Your task to perform on an android device: set an alarm Image 0: 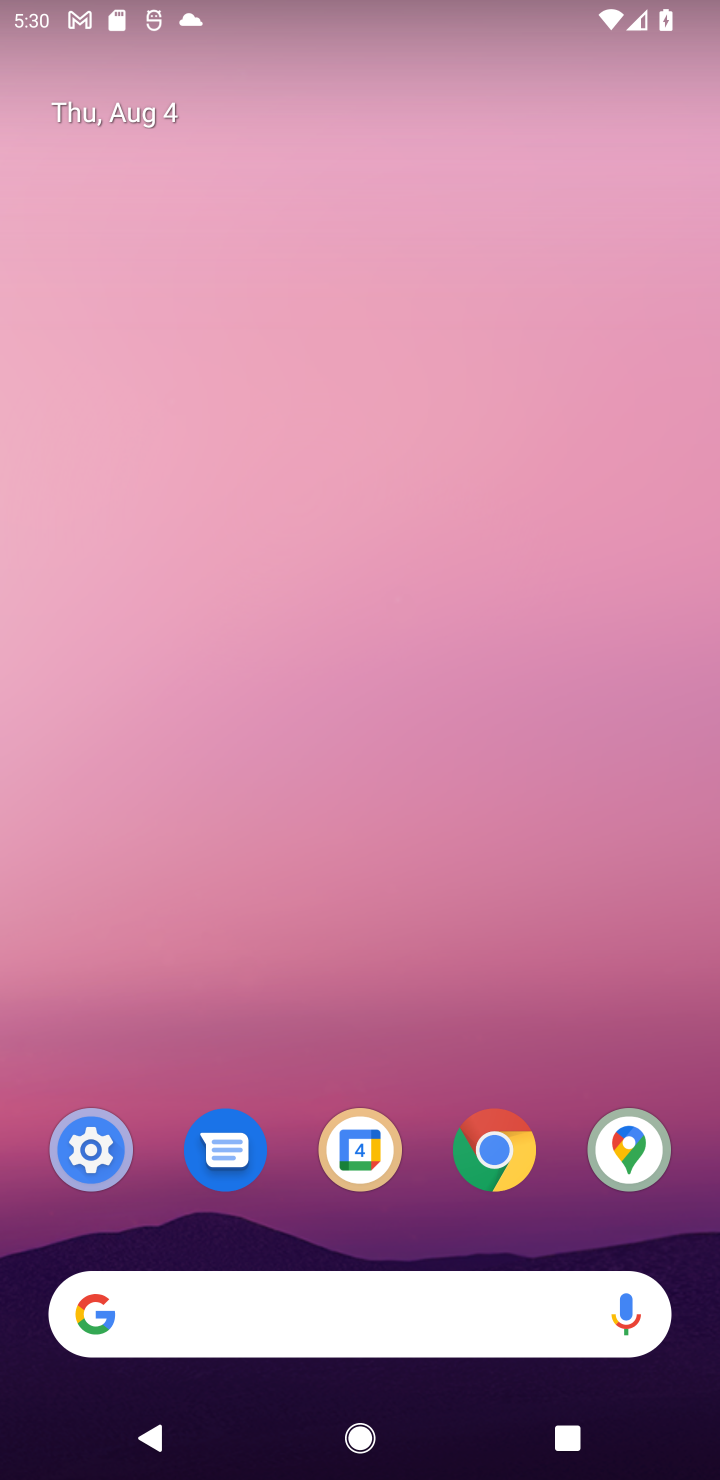
Step 0: drag from (283, 1148) to (234, 111)
Your task to perform on an android device: set an alarm Image 1: 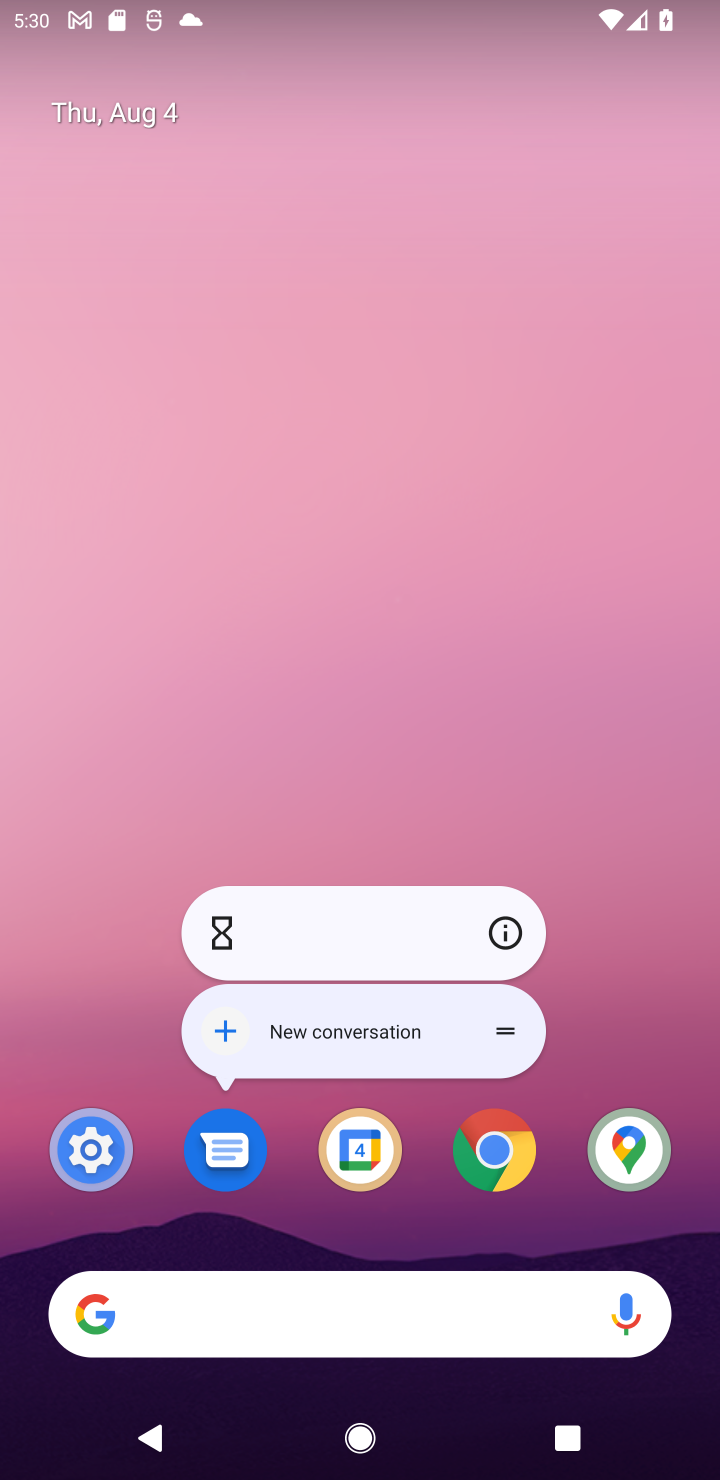
Step 1: drag from (413, 1176) to (277, 51)
Your task to perform on an android device: set an alarm Image 2: 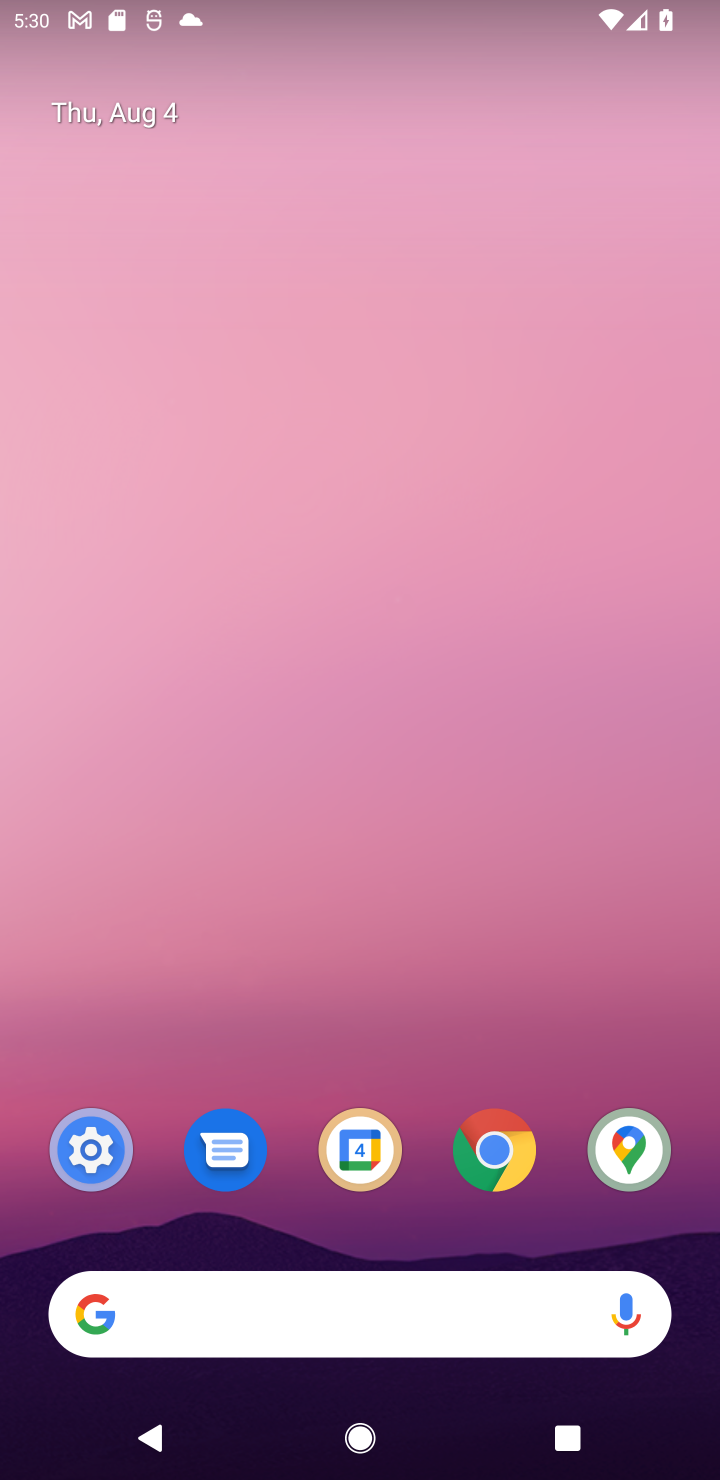
Step 2: drag from (396, 1242) to (378, 32)
Your task to perform on an android device: set an alarm Image 3: 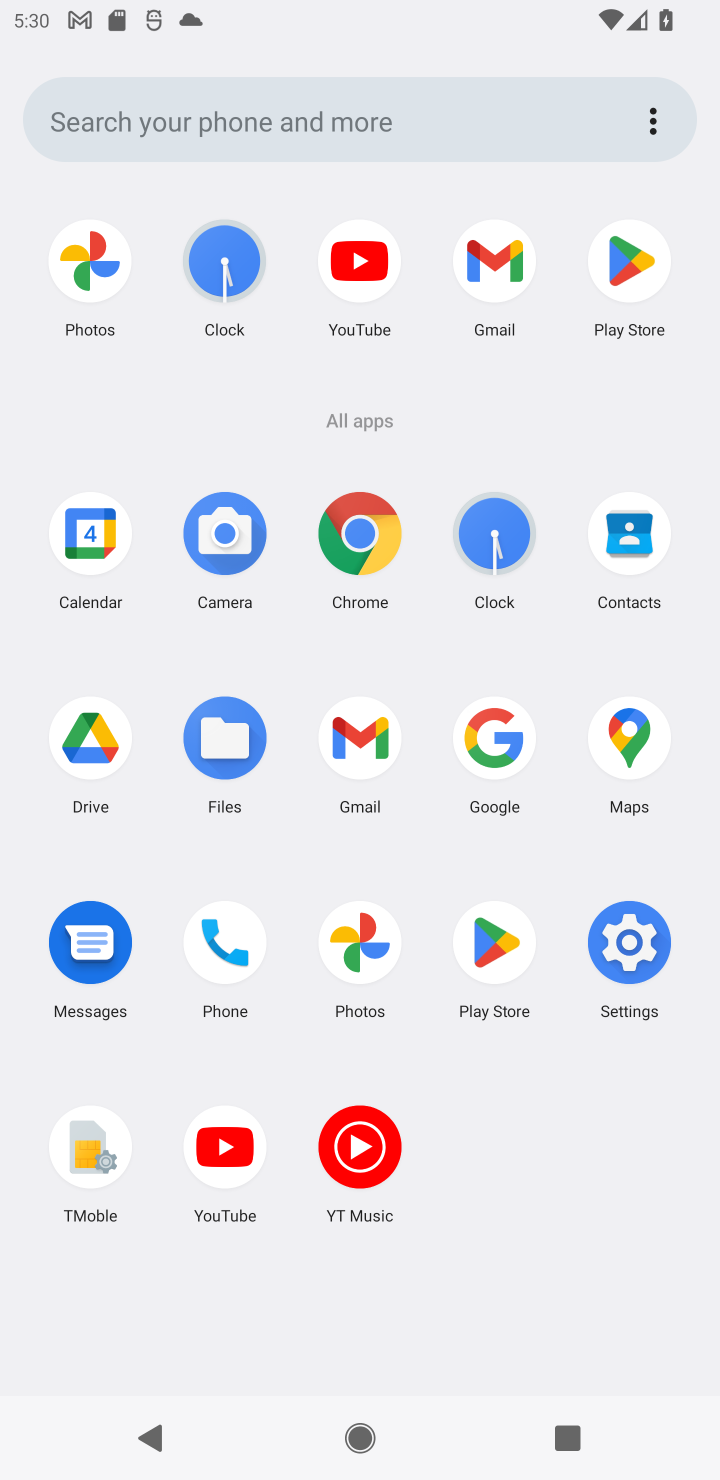
Step 3: click (498, 571)
Your task to perform on an android device: set an alarm Image 4: 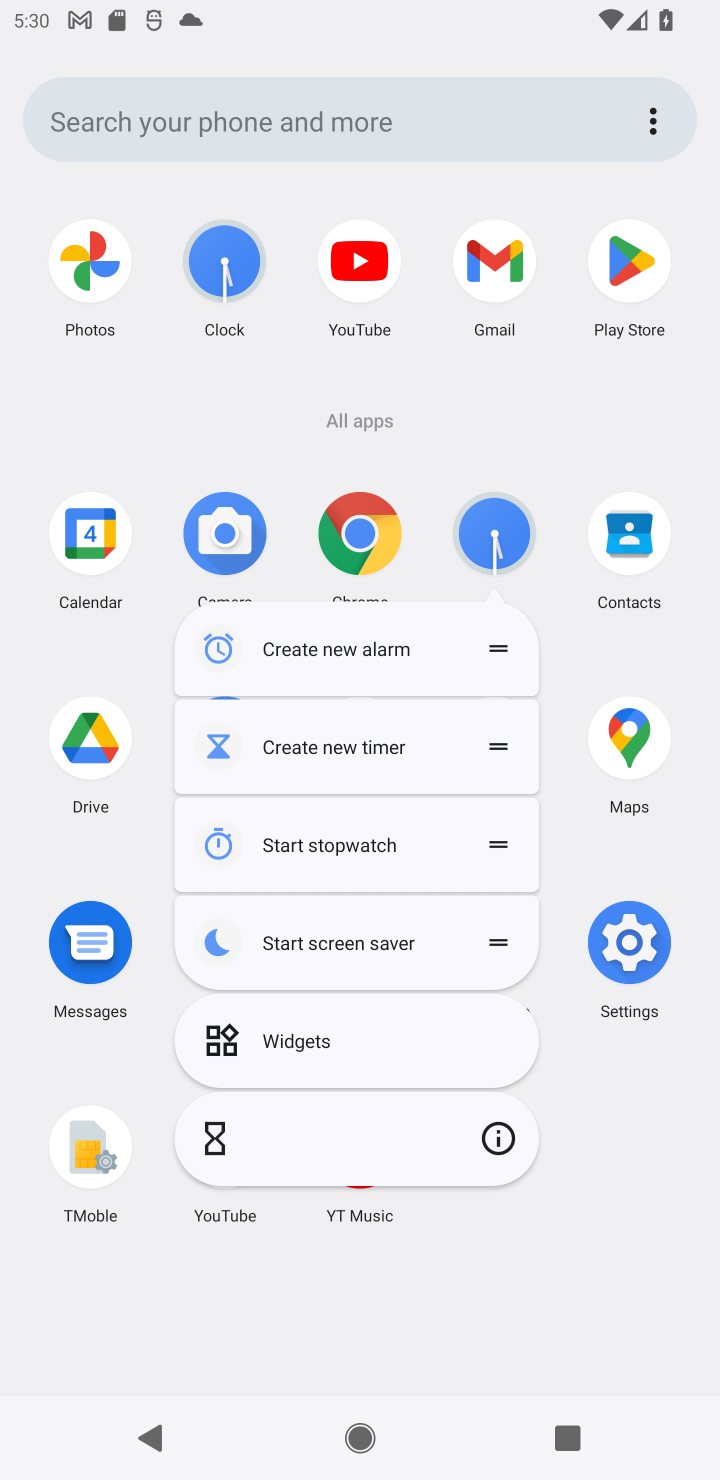
Step 4: click (501, 543)
Your task to perform on an android device: set an alarm Image 5: 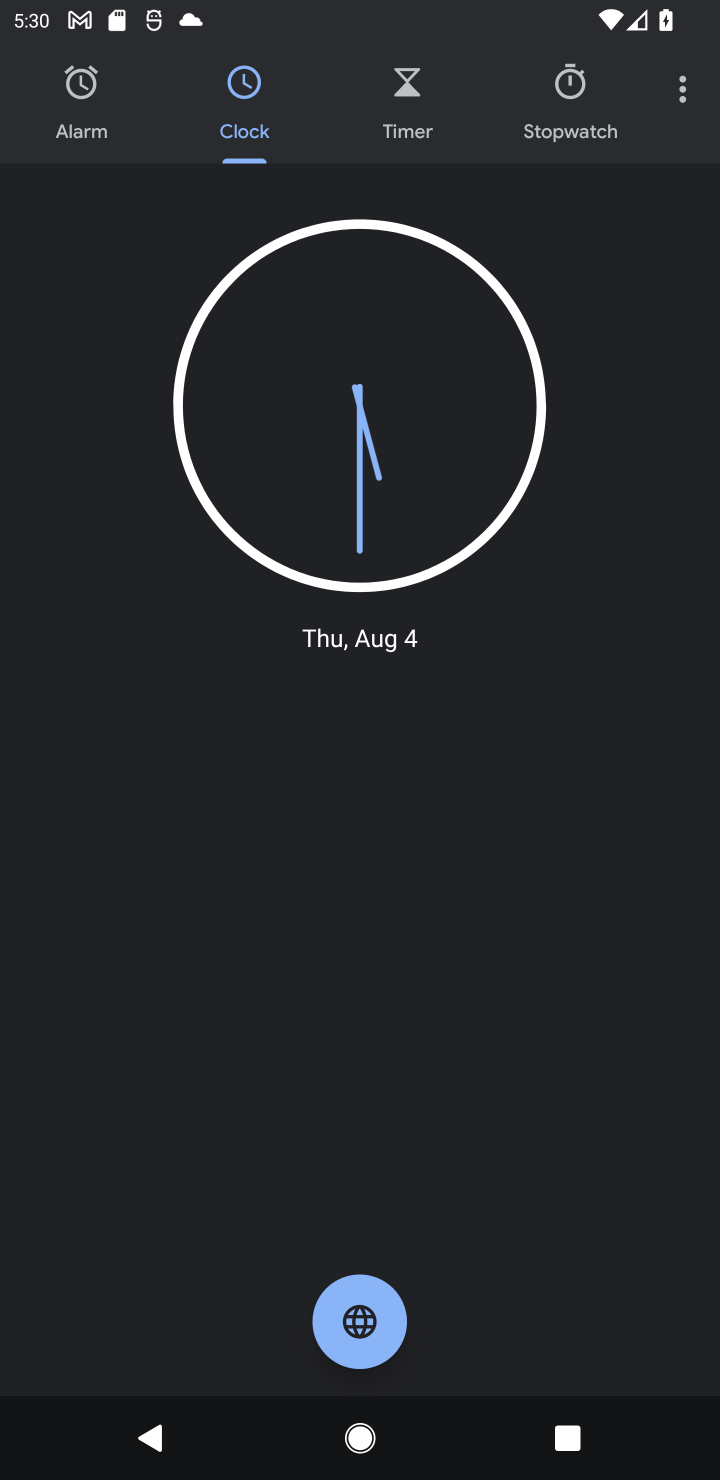
Step 5: click (82, 120)
Your task to perform on an android device: set an alarm Image 6: 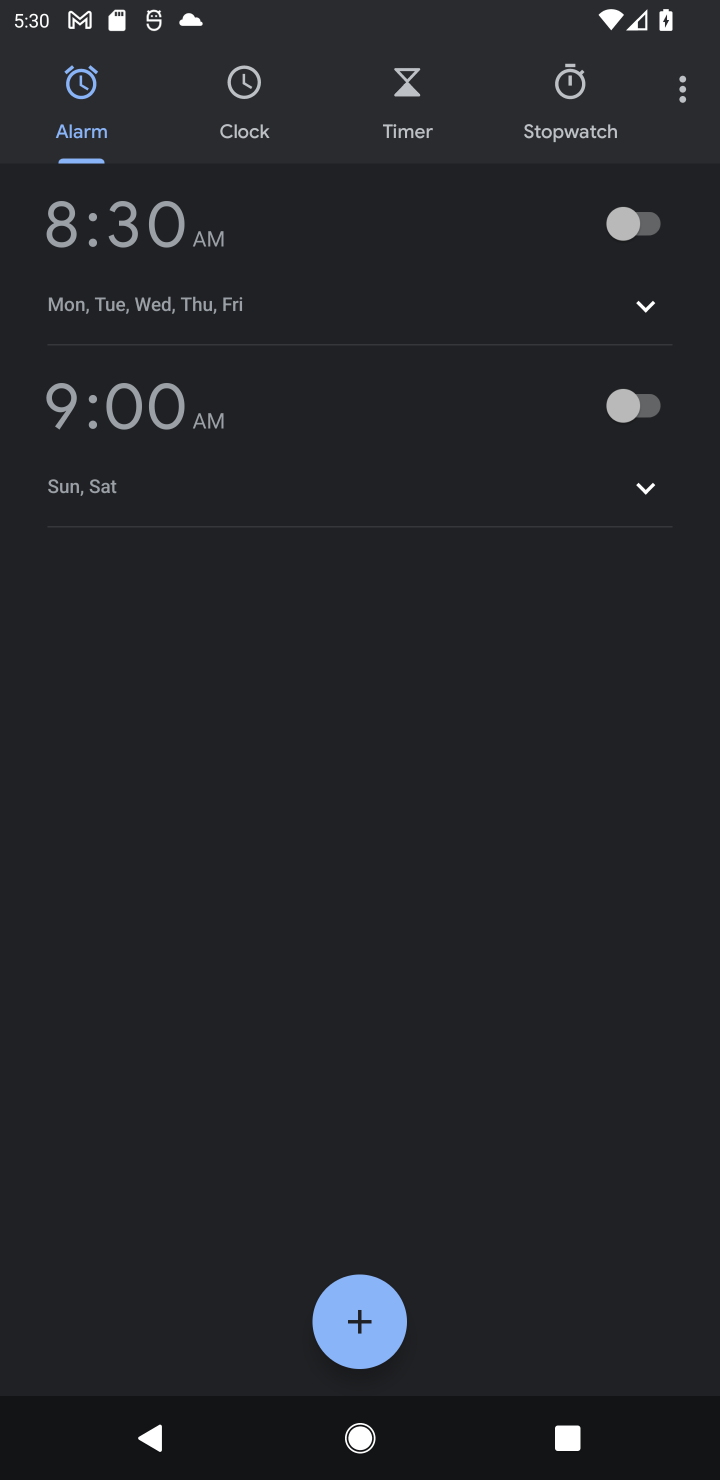
Step 6: click (133, 243)
Your task to perform on an android device: set an alarm Image 7: 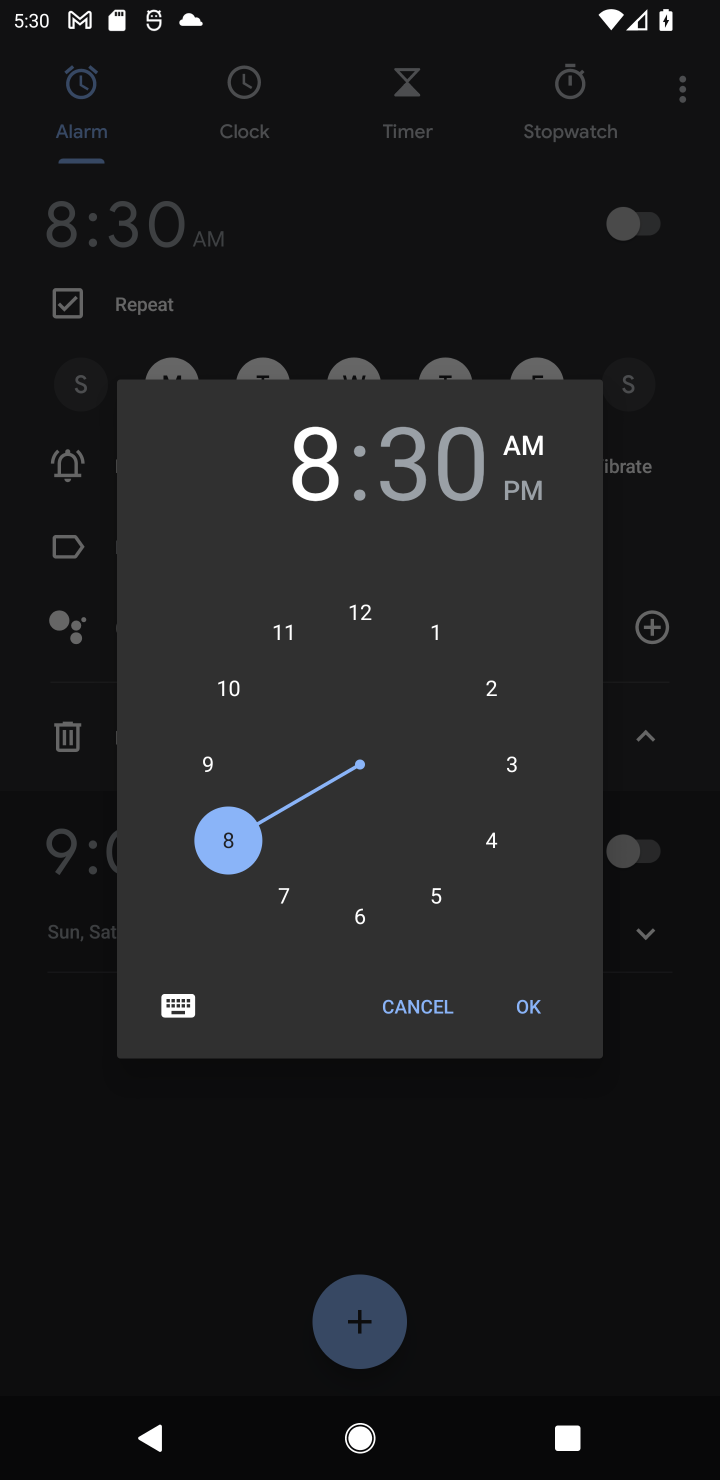
Step 7: click (295, 628)
Your task to perform on an android device: set an alarm Image 8: 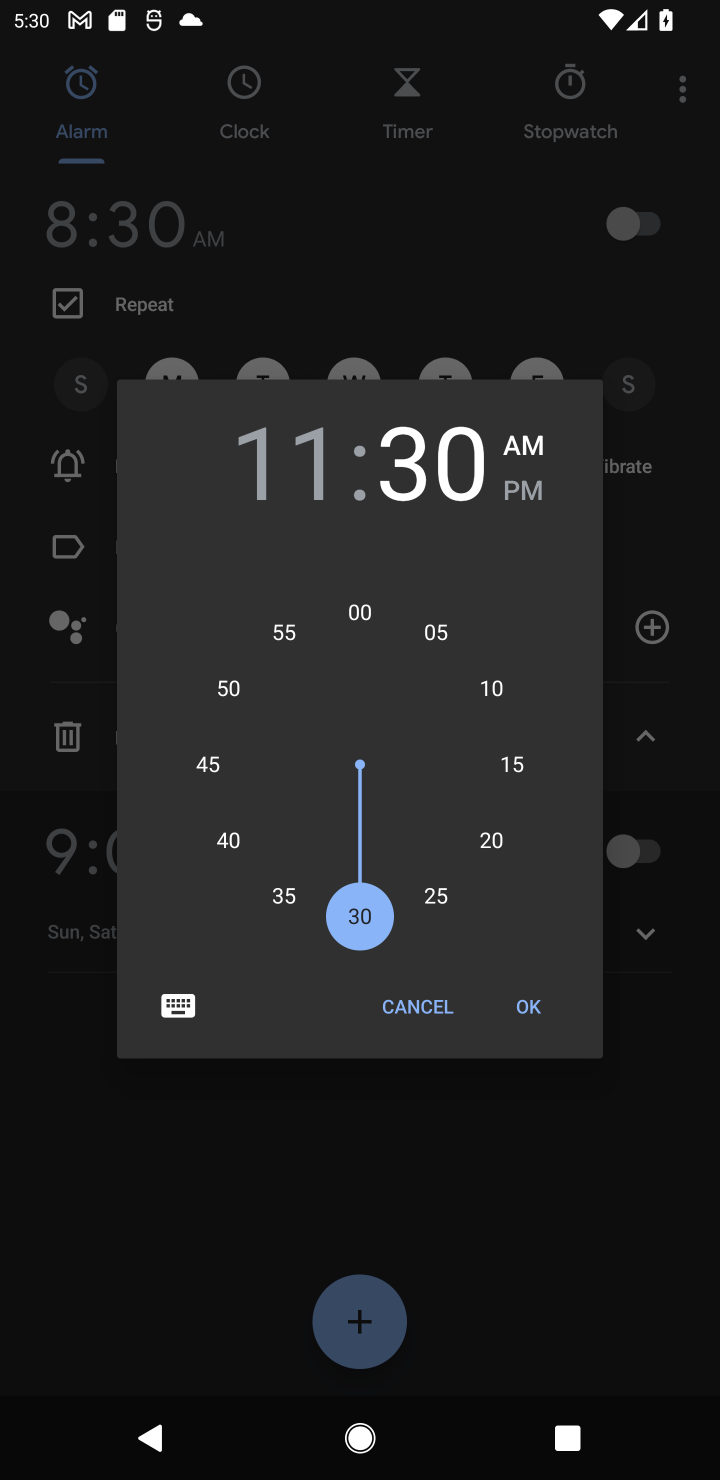
Step 8: click (510, 744)
Your task to perform on an android device: set an alarm Image 9: 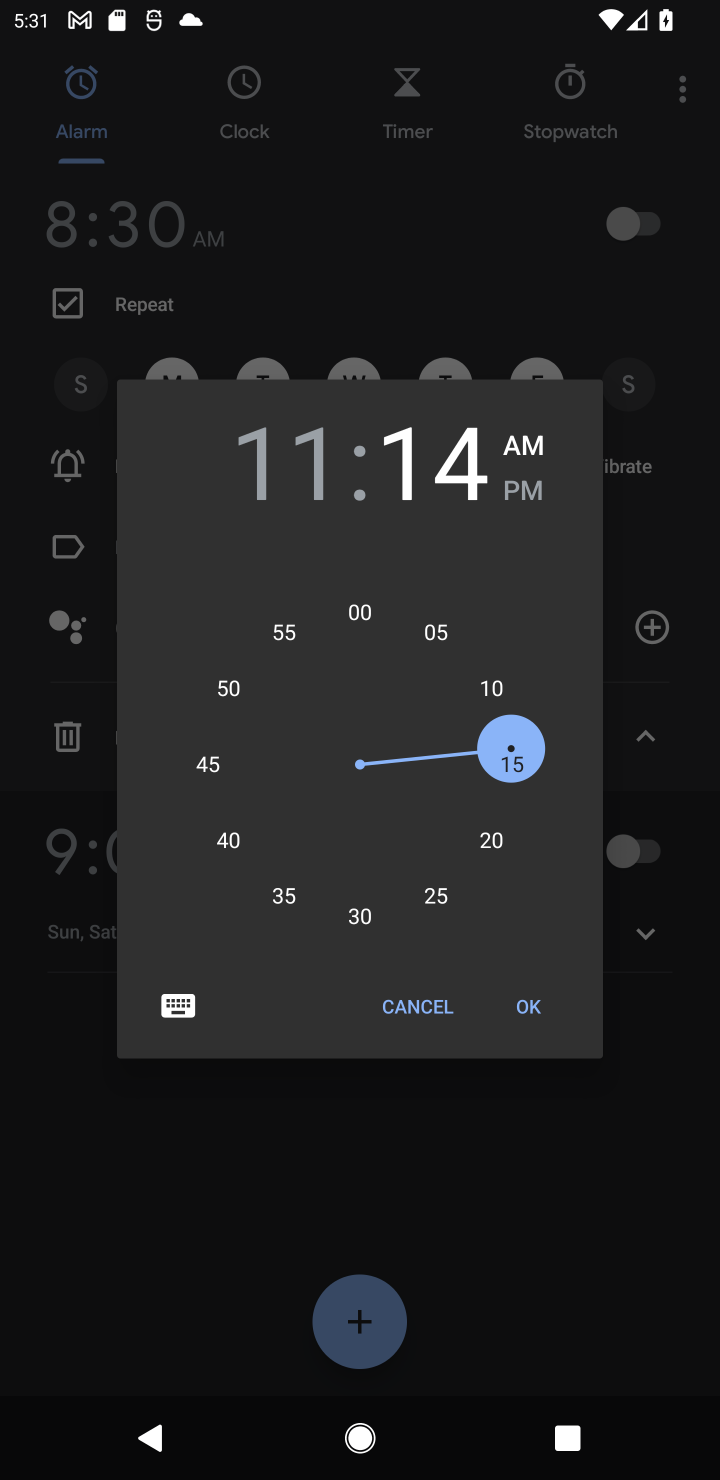
Step 9: click (543, 503)
Your task to perform on an android device: set an alarm Image 10: 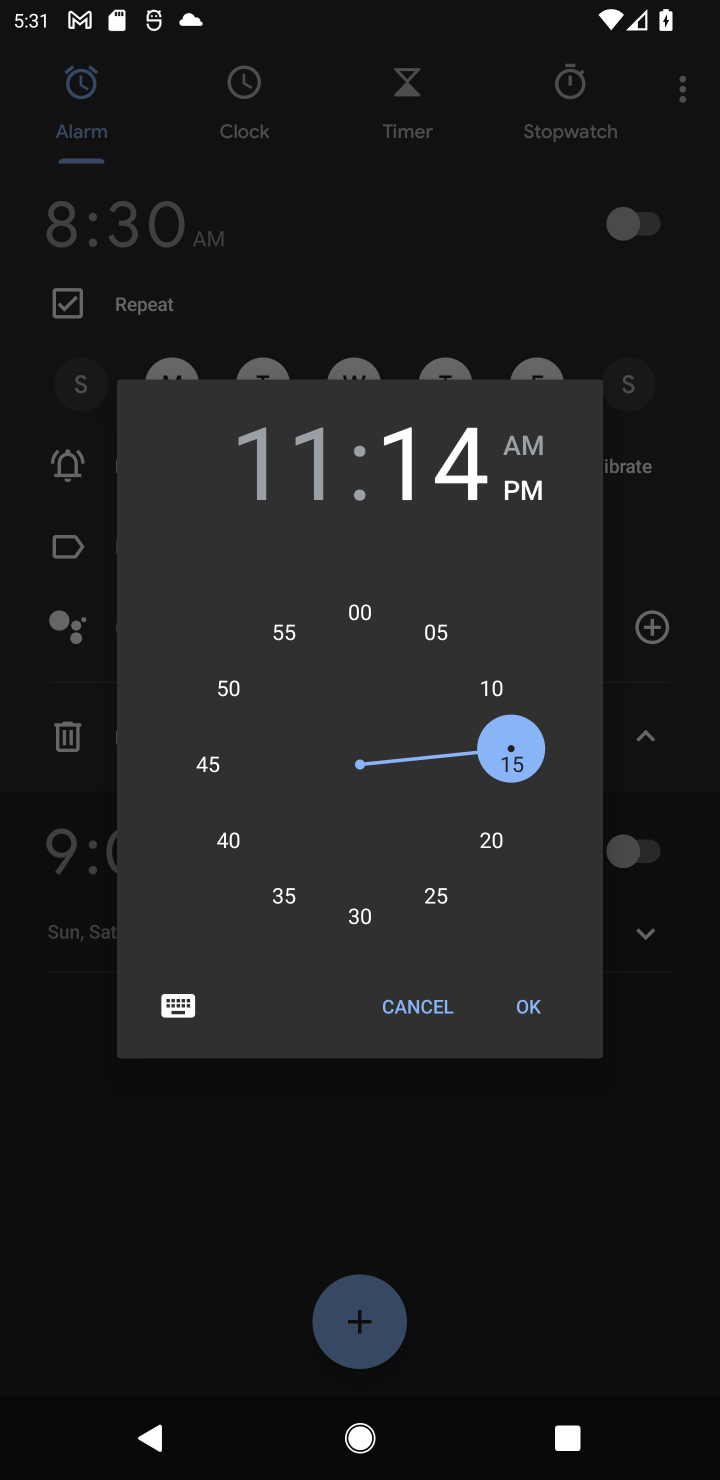
Step 10: click (535, 1012)
Your task to perform on an android device: set an alarm Image 11: 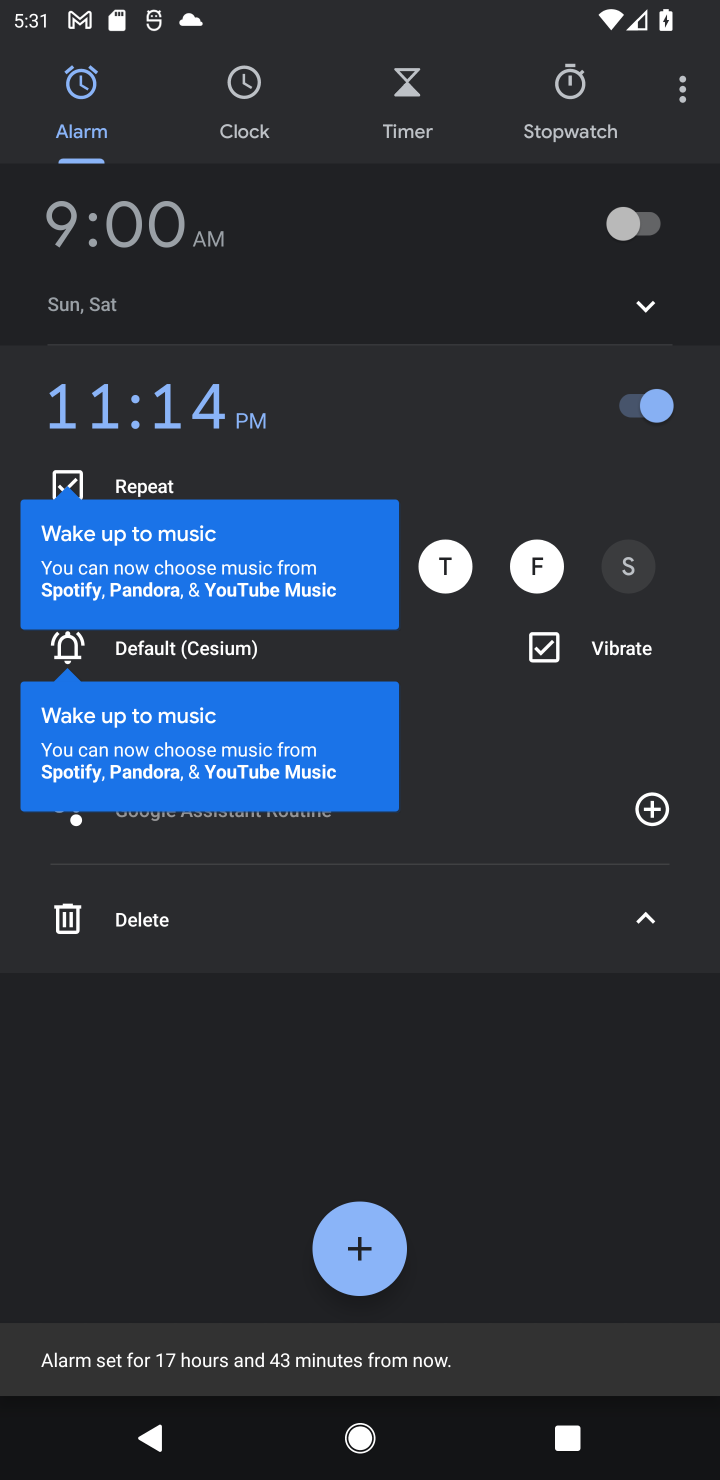
Step 11: click (659, 205)
Your task to perform on an android device: set an alarm Image 12: 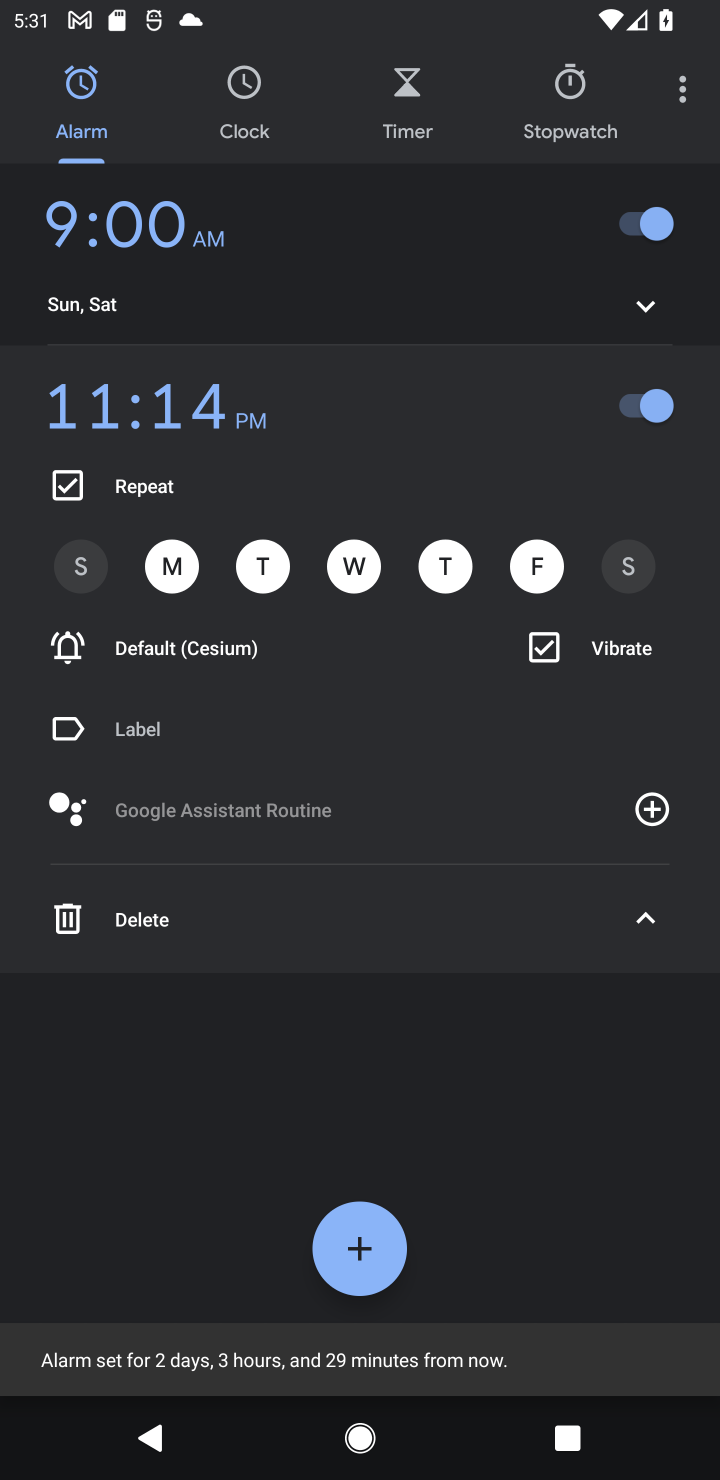
Step 12: task complete